Your task to perform on an android device: set default search engine in the chrome app Image 0: 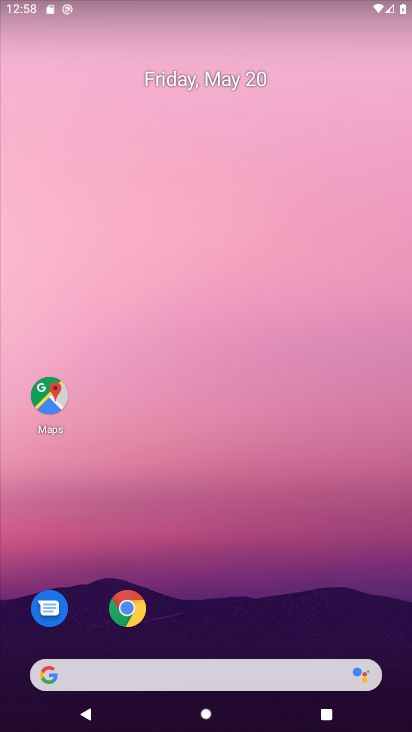
Step 0: click (131, 612)
Your task to perform on an android device: set default search engine in the chrome app Image 1: 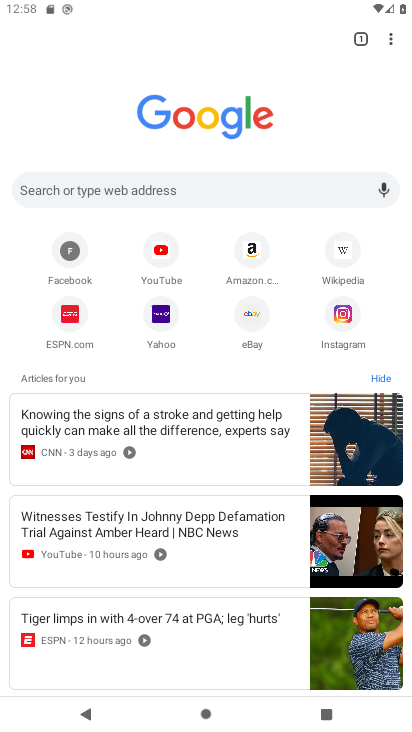
Step 1: drag from (391, 37) to (283, 333)
Your task to perform on an android device: set default search engine in the chrome app Image 2: 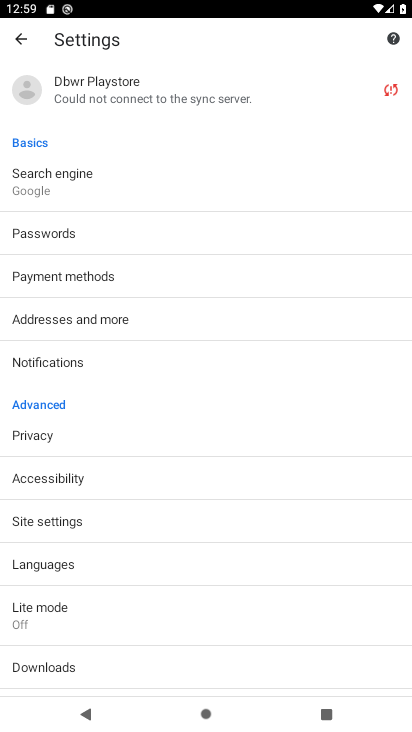
Step 2: click (66, 190)
Your task to perform on an android device: set default search engine in the chrome app Image 3: 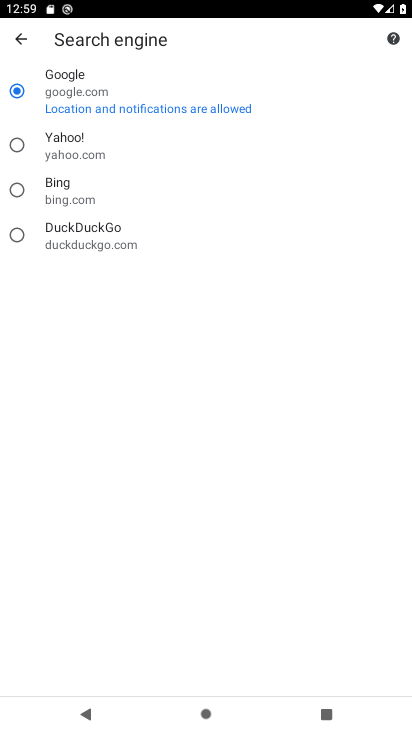
Step 3: click (72, 200)
Your task to perform on an android device: set default search engine in the chrome app Image 4: 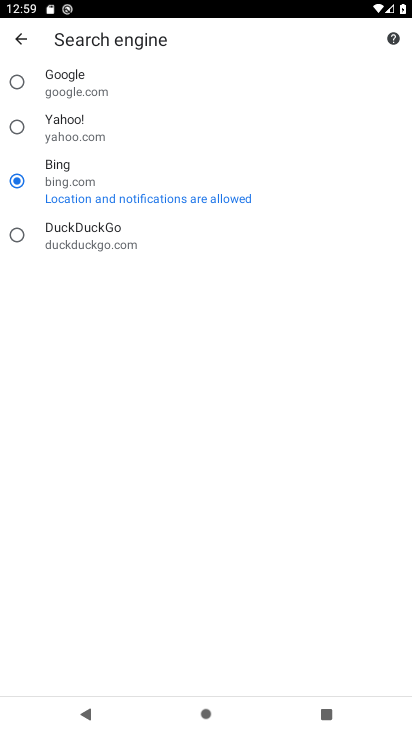
Step 4: task complete